Your task to perform on an android device: turn on showing notifications on the lock screen Image 0: 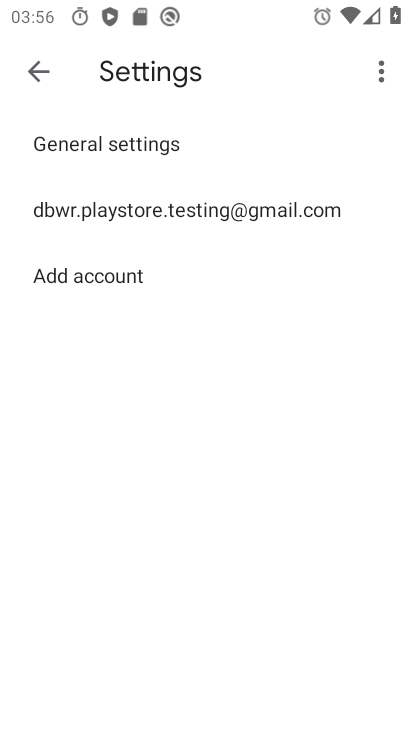
Step 0: press home button
Your task to perform on an android device: turn on showing notifications on the lock screen Image 1: 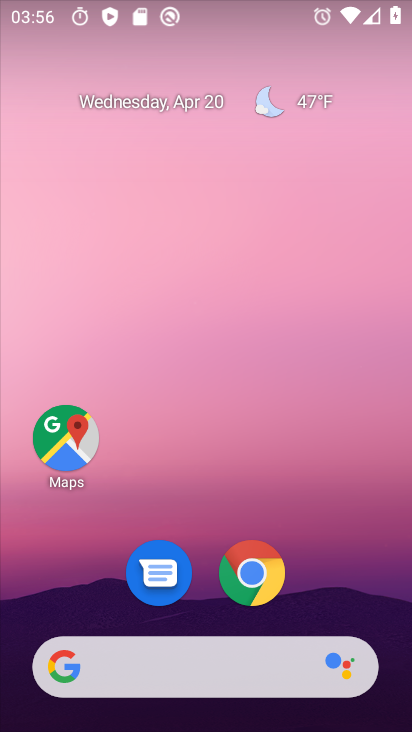
Step 1: drag from (199, 659) to (199, 88)
Your task to perform on an android device: turn on showing notifications on the lock screen Image 2: 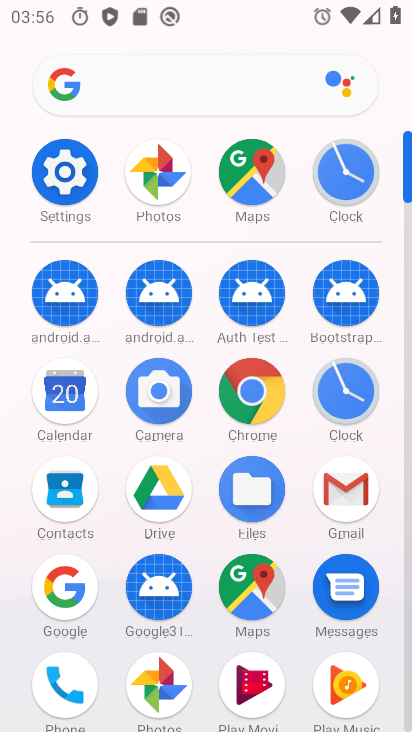
Step 2: click (62, 168)
Your task to perform on an android device: turn on showing notifications on the lock screen Image 3: 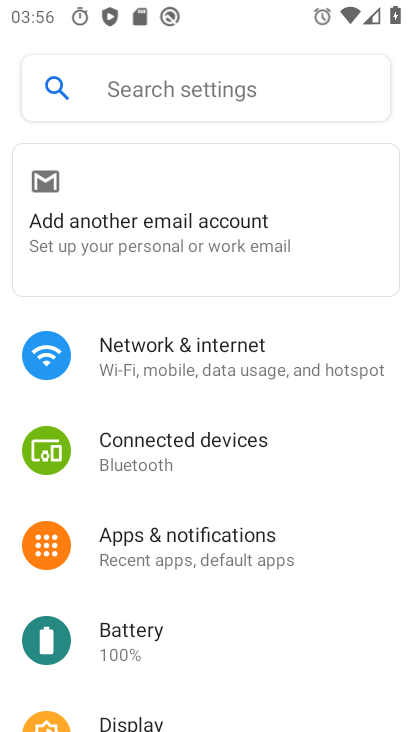
Step 3: click (202, 543)
Your task to perform on an android device: turn on showing notifications on the lock screen Image 4: 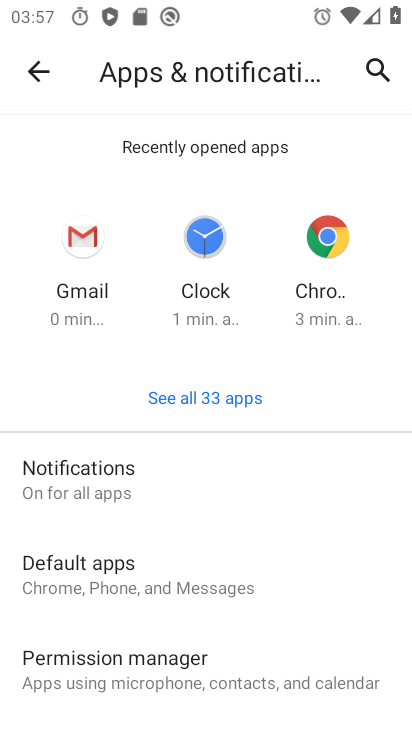
Step 4: click (71, 475)
Your task to perform on an android device: turn on showing notifications on the lock screen Image 5: 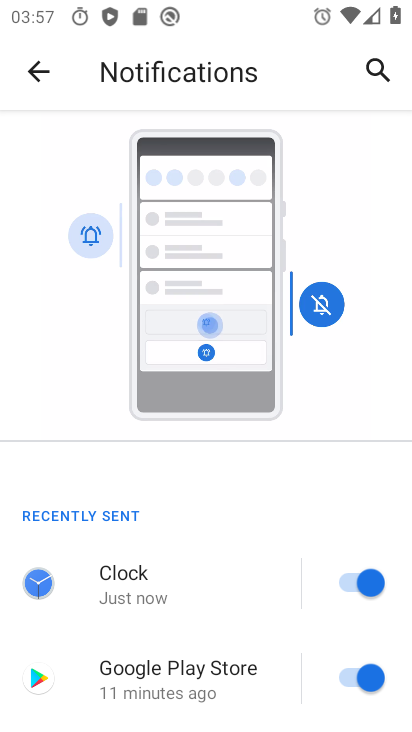
Step 5: drag from (208, 697) to (209, 308)
Your task to perform on an android device: turn on showing notifications on the lock screen Image 6: 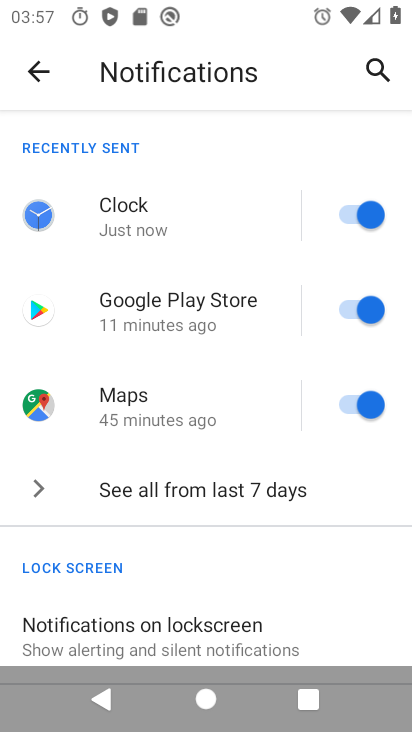
Step 6: drag from (188, 594) to (196, 387)
Your task to perform on an android device: turn on showing notifications on the lock screen Image 7: 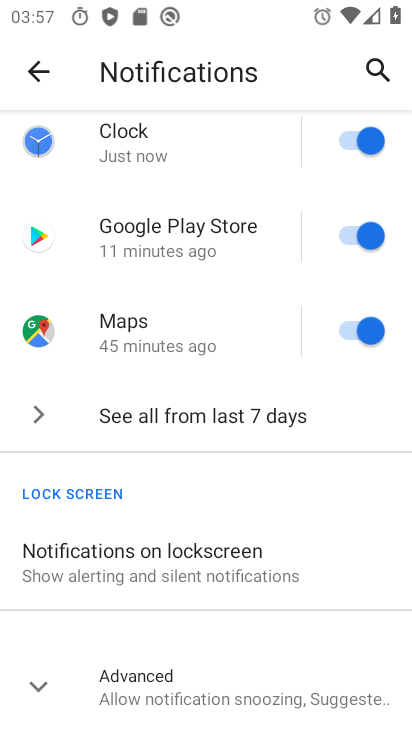
Step 7: click (167, 568)
Your task to perform on an android device: turn on showing notifications on the lock screen Image 8: 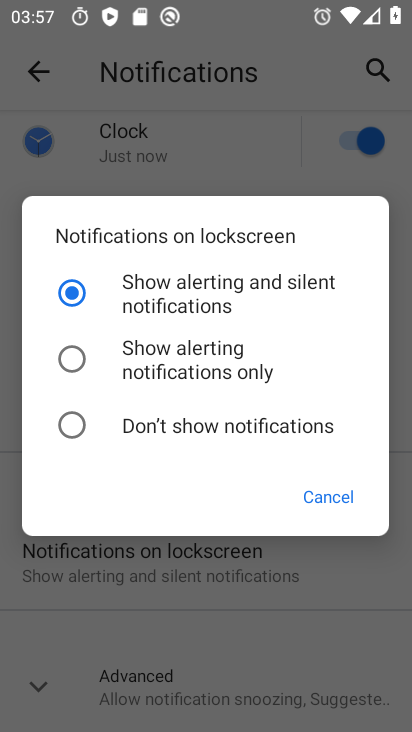
Step 8: click (327, 497)
Your task to perform on an android device: turn on showing notifications on the lock screen Image 9: 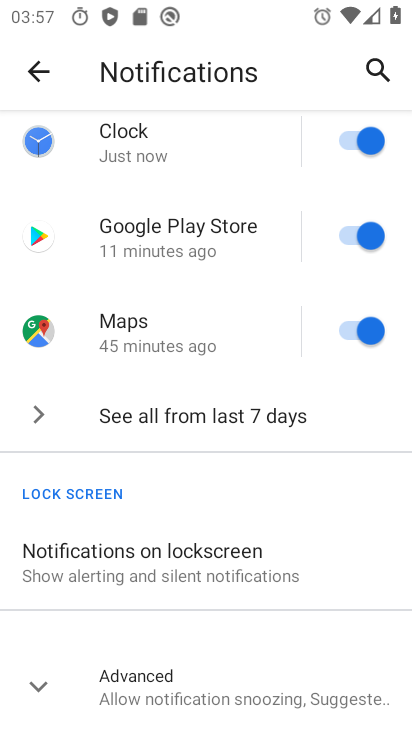
Step 9: task complete